Your task to perform on an android device: Open Google Chrome Image 0: 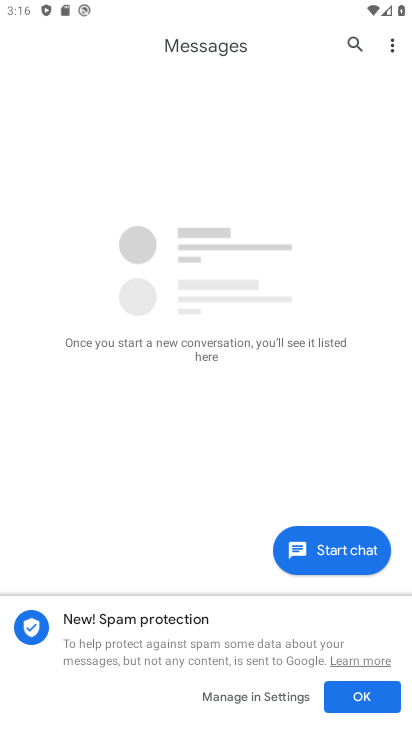
Step 0: press home button
Your task to perform on an android device: Open Google Chrome Image 1: 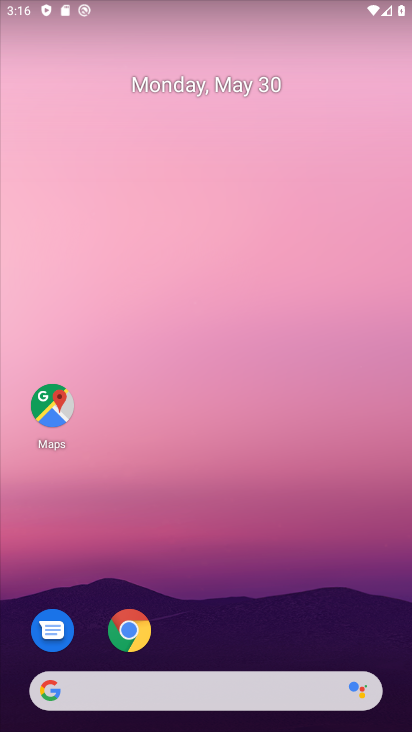
Step 1: click (147, 619)
Your task to perform on an android device: Open Google Chrome Image 2: 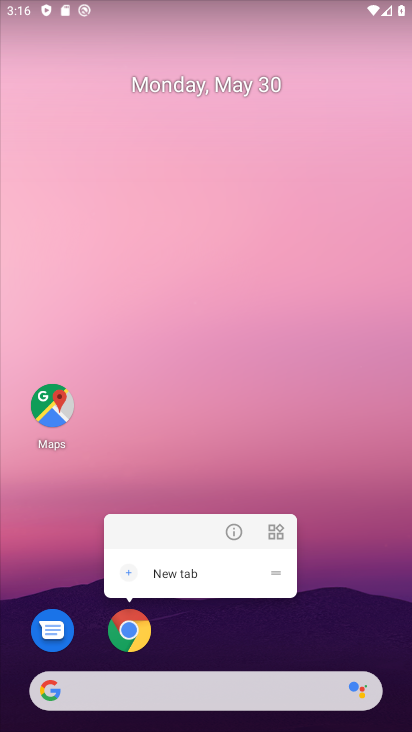
Step 2: click (136, 651)
Your task to perform on an android device: Open Google Chrome Image 3: 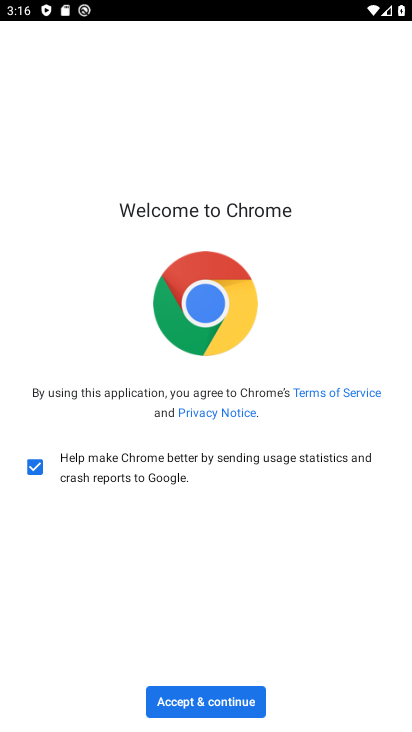
Step 3: click (254, 704)
Your task to perform on an android device: Open Google Chrome Image 4: 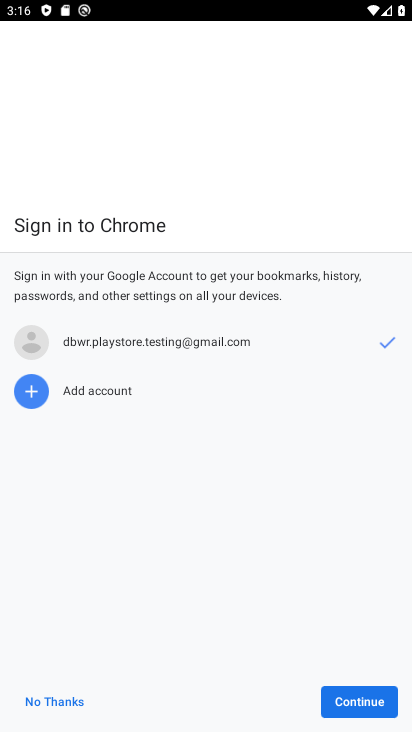
Step 4: click (353, 699)
Your task to perform on an android device: Open Google Chrome Image 5: 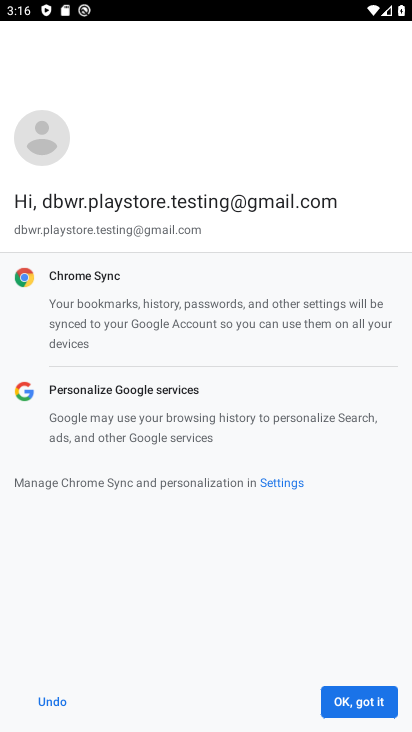
Step 5: click (353, 699)
Your task to perform on an android device: Open Google Chrome Image 6: 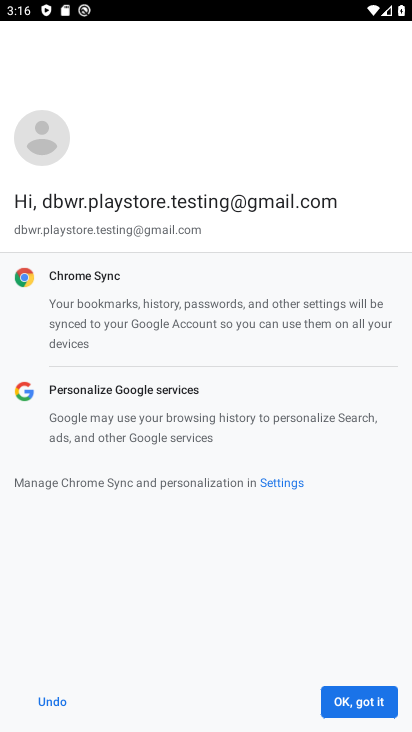
Step 6: click (353, 699)
Your task to perform on an android device: Open Google Chrome Image 7: 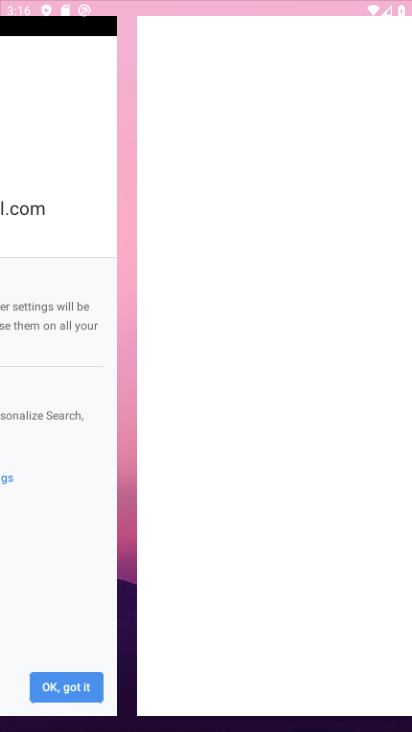
Step 7: click (353, 699)
Your task to perform on an android device: Open Google Chrome Image 8: 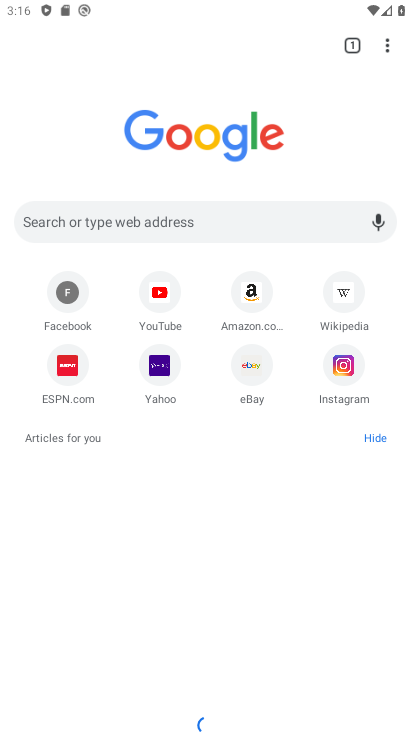
Step 8: task complete